Your task to perform on an android device: delete the emails in spam in the gmail app Image 0: 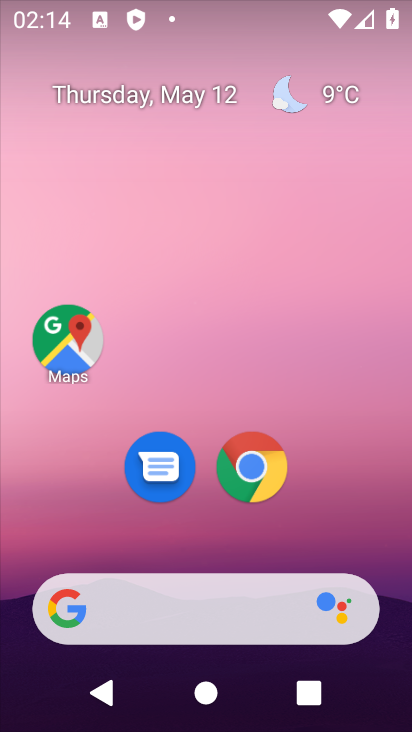
Step 0: drag from (311, 539) to (326, 135)
Your task to perform on an android device: delete the emails in spam in the gmail app Image 1: 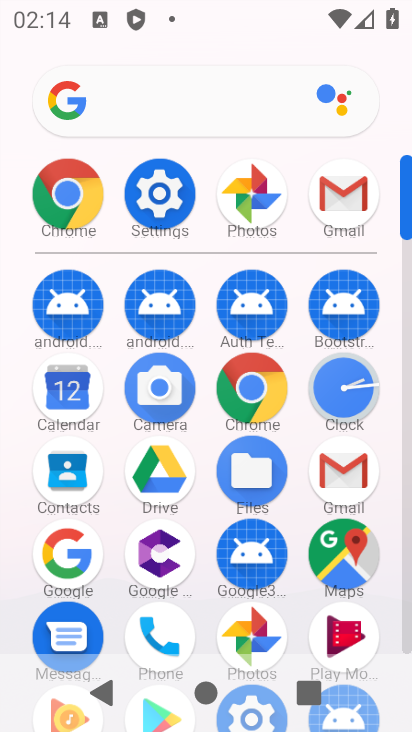
Step 1: click (326, 194)
Your task to perform on an android device: delete the emails in spam in the gmail app Image 2: 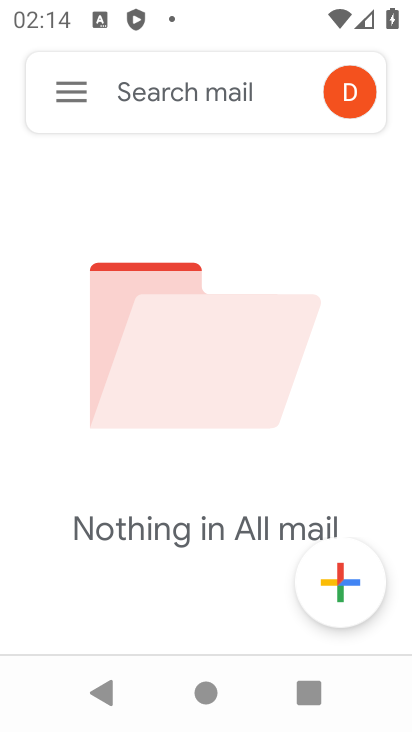
Step 2: click (63, 92)
Your task to perform on an android device: delete the emails in spam in the gmail app Image 3: 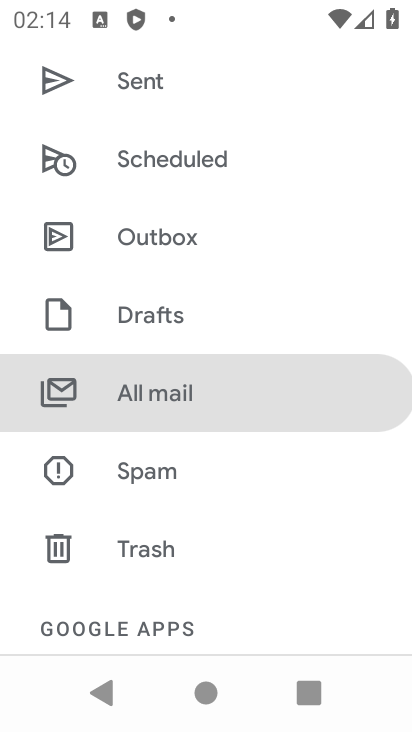
Step 3: click (170, 396)
Your task to perform on an android device: delete the emails in spam in the gmail app Image 4: 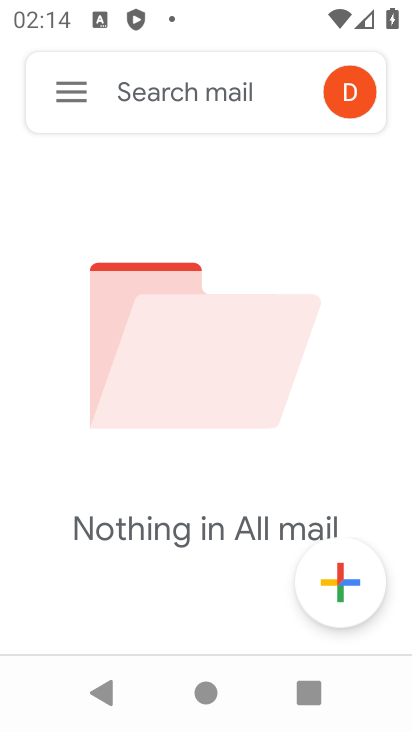
Step 4: click (67, 85)
Your task to perform on an android device: delete the emails in spam in the gmail app Image 5: 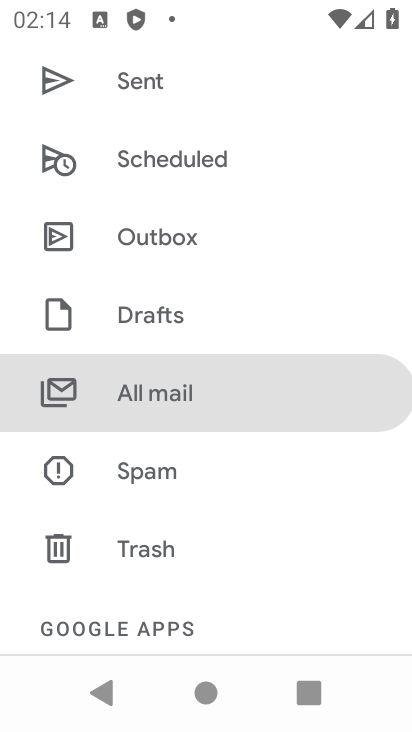
Step 5: click (151, 452)
Your task to perform on an android device: delete the emails in spam in the gmail app Image 6: 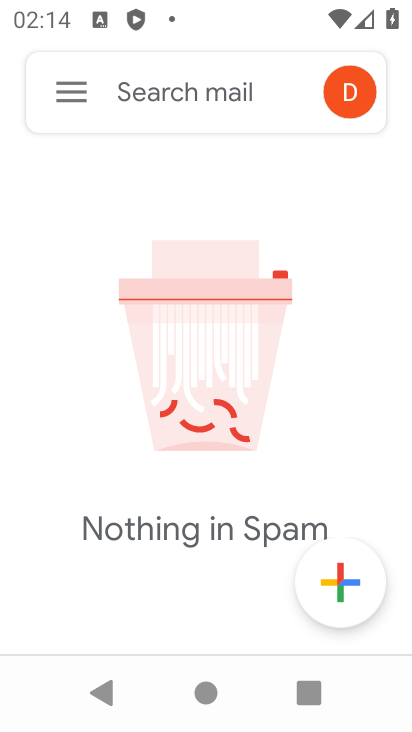
Step 6: task complete